Your task to perform on an android device: Go to display settings Image 0: 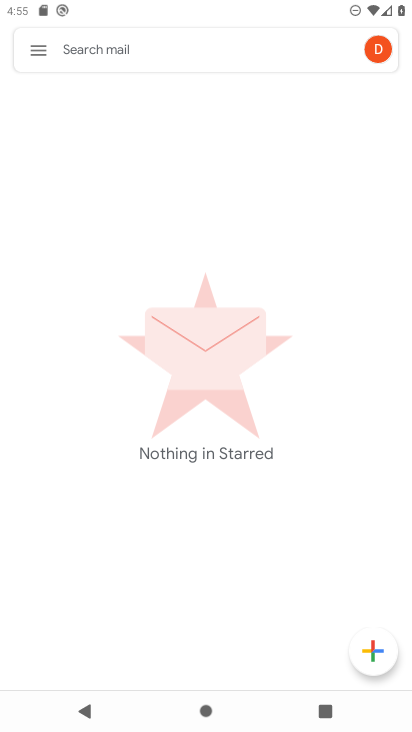
Step 0: press home button
Your task to perform on an android device: Go to display settings Image 1: 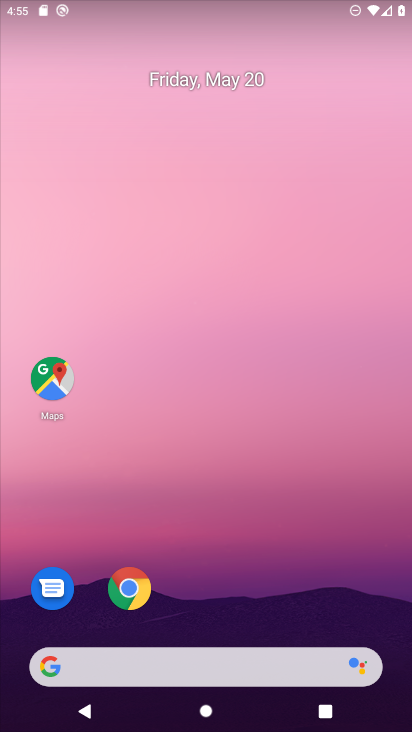
Step 1: drag from (247, 370) to (225, 175)
Your task to perform on an android device: Go to display settings Image 2: 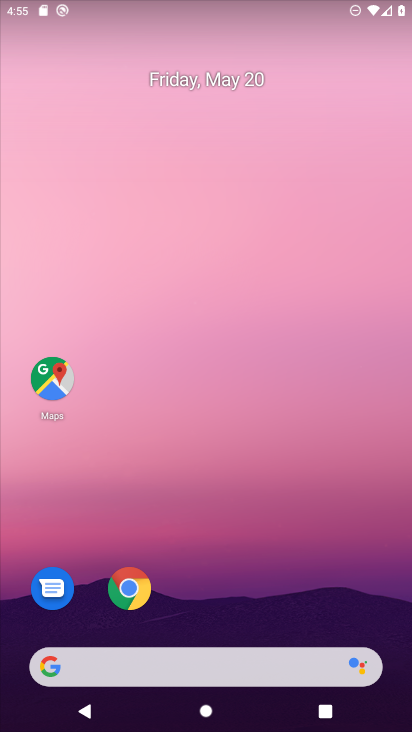
Step 2: drag from (204, 265) to (202, 227)
Your task to perform on an android device: Go to display settings Image 3: 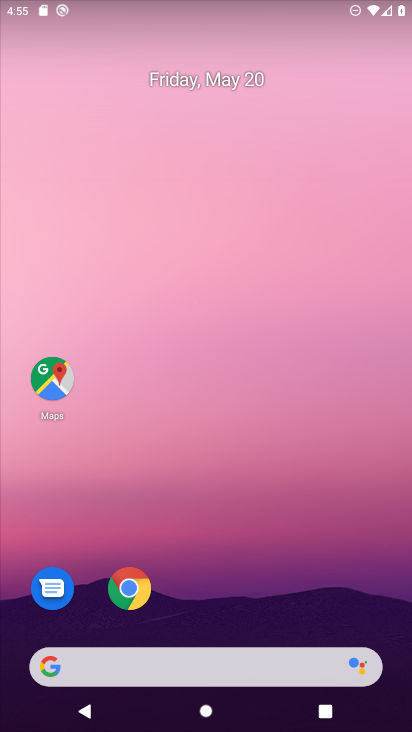
Step 3: drag from (212, 593) to (252, 190)
Your task to perform on an android device: Go to display settings Image 4: 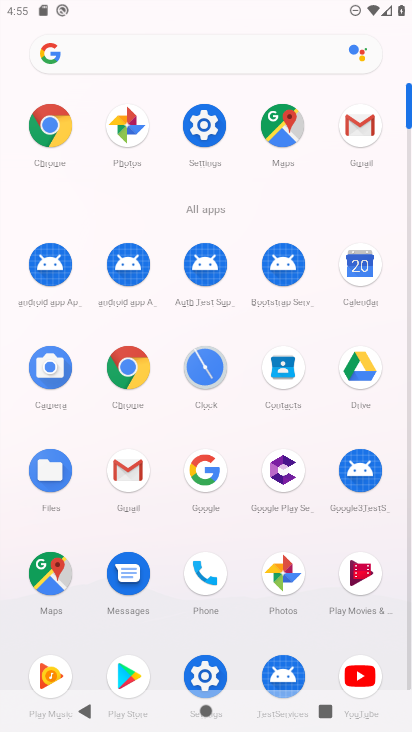
Step 4: click (202, 145)
Your task to perform on an android device: Go to display settings Image 5: 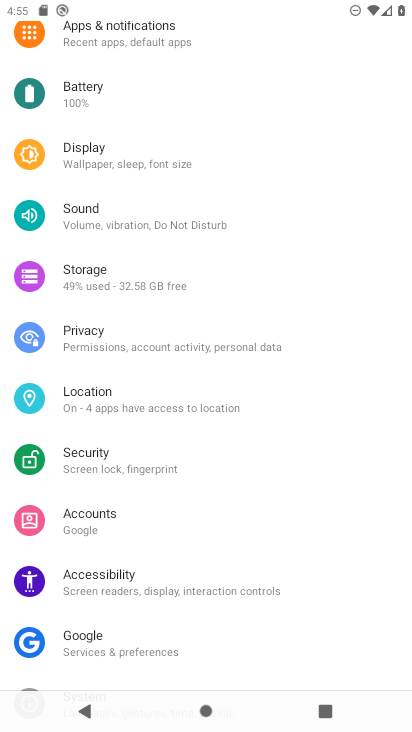
Step 5: click (81, 153)
Your task to perform on an android device: Go to display settings Image 6: 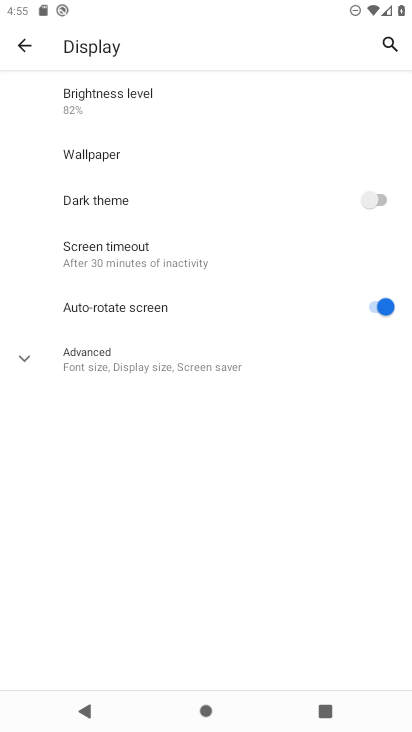
Step 6: task complete